Your task to perform on an android device: Open Wikipedia Image 0: 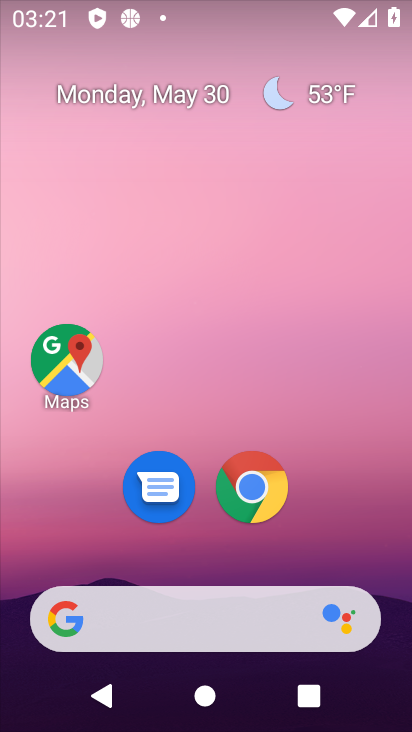
Step 0: click (255, 488)
Your task to perform on an android device: Open Wikipedia Image 1: 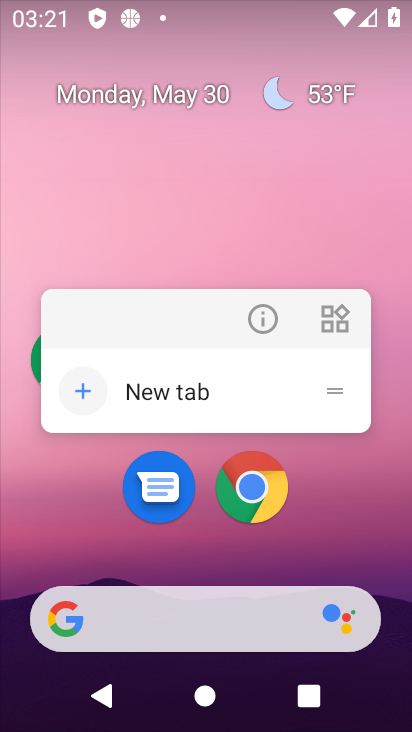
Step 1: click (255, 488)
Your task to perform on an android device: Open Wikipedia Image 2: 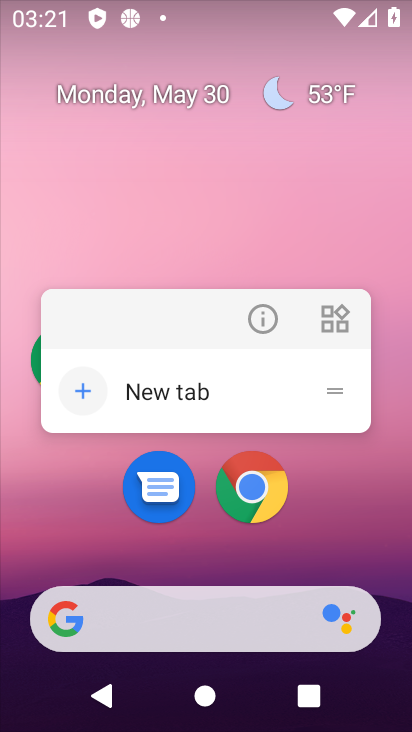
Step 2: click (266, 499)
Your task to perform on an android device: Open Wikipedia Image 3: 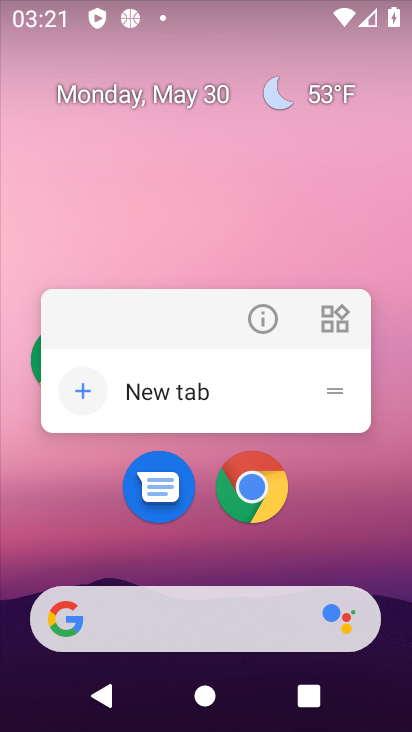
Step 3: click (249, 498)
Your task to perform on an android device: Open Wikipedia Image 4: 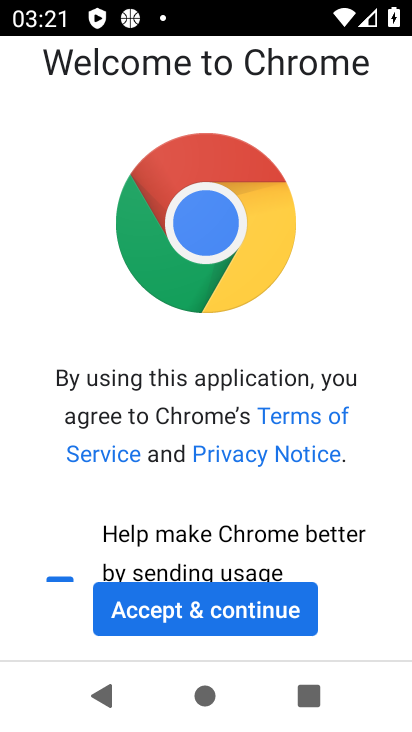
Step 4: click (256, 604)
Your task to perform on an android device: Open Wikipedia Image 5: 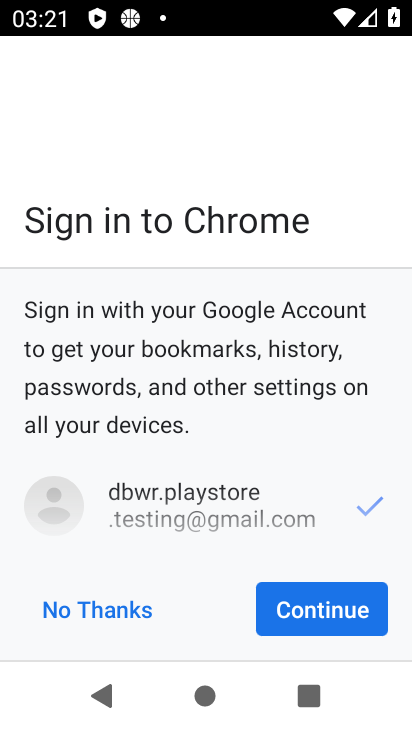
Step 5: click (331, 631)
Your task to perform on an android device: Open Wikipedia Image 6: 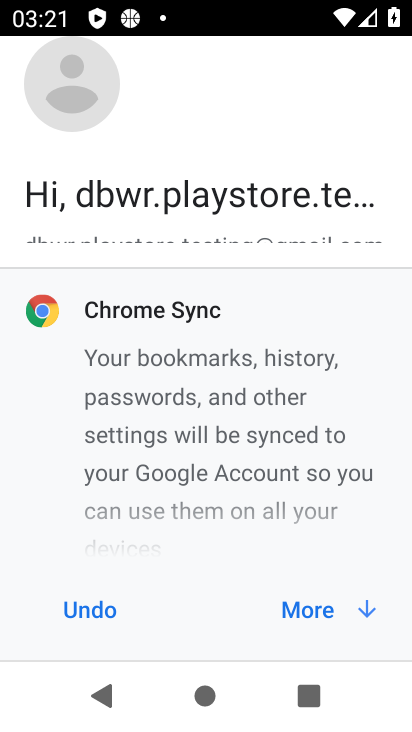
Step 6: click (331, 631)
Your task to perform on an android device: Open Wikipedia Image 7: 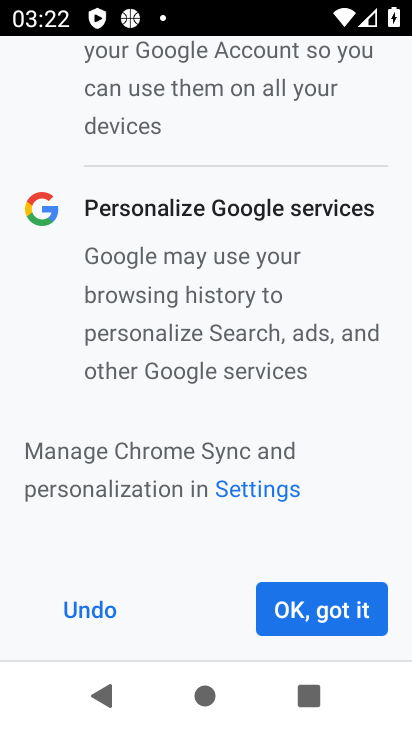
Step 7: click (341, 602)
Your task to perform on an android device: Open Wikipedia Image 8: 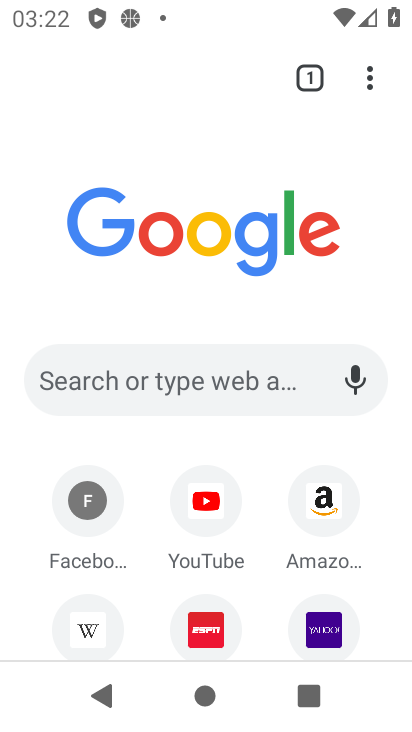
Step 8: click (119, 615)
Your task to perform on an android device: Open Wikipedia Image 9: 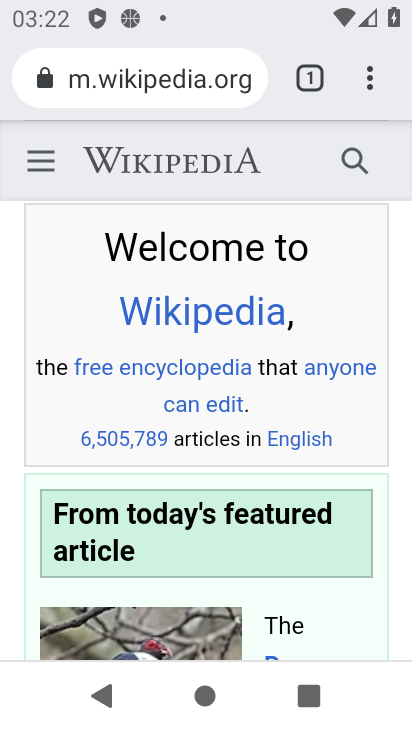
Step 9: task complete